Your task to perform on an android device: toggle location history Image 0: 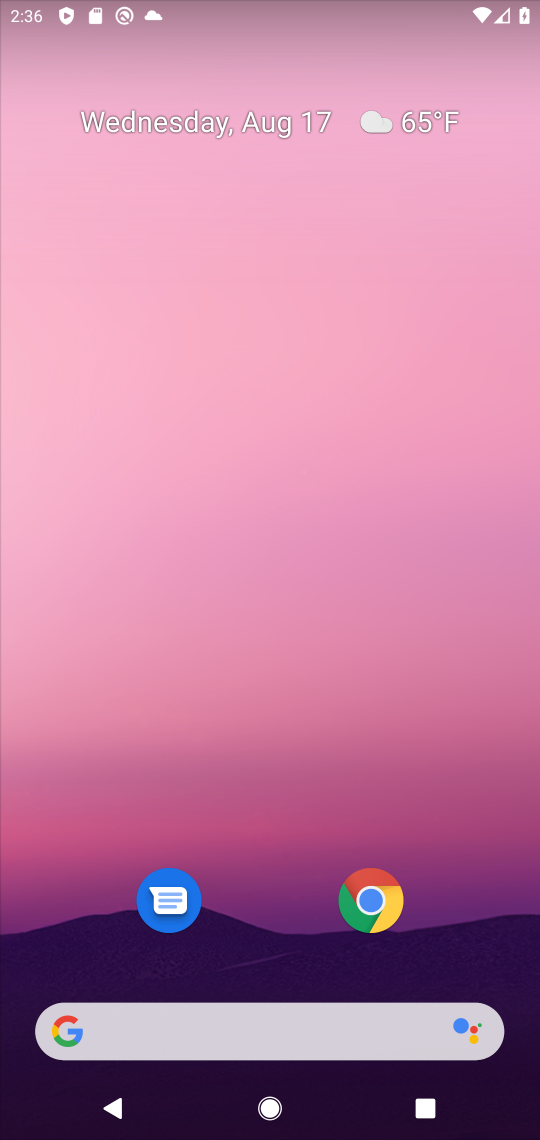
Step 0: drag from (261, 1034) to (348, 124)
Your task to perform on an android device: toggle location history Image 1: 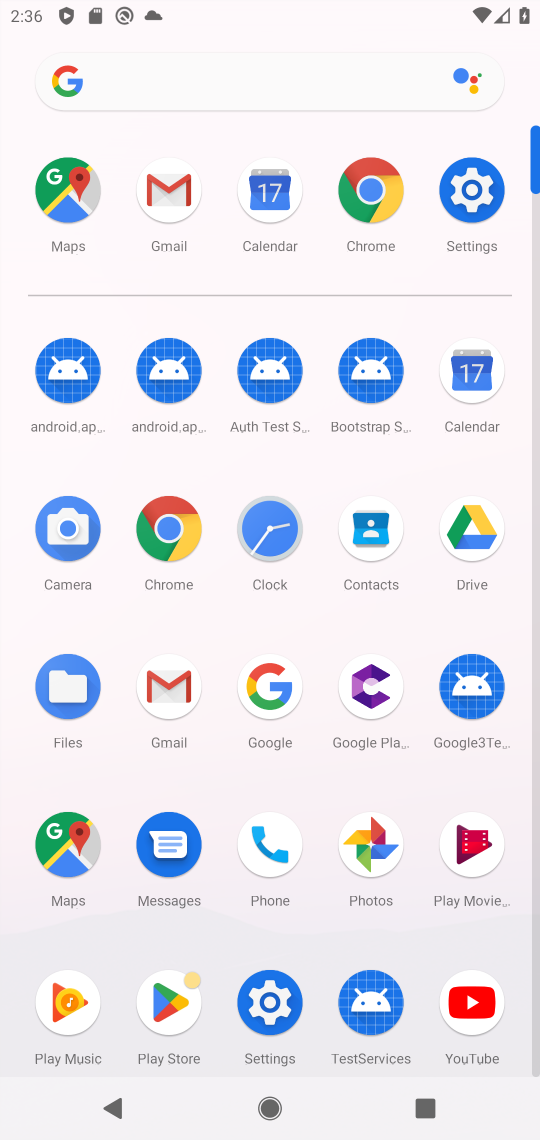
Step 1: click (49, 195)
Your task to perform on an android device: toggle location history Image 2: 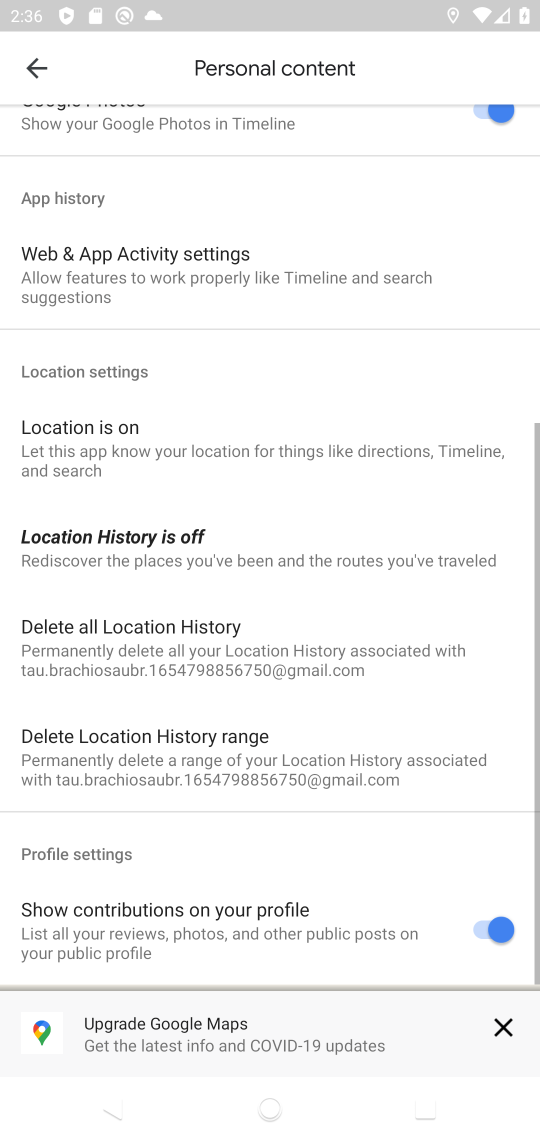
Step 2: click (177, 559)
Your task to perform on an android device: toggle location history Image 3: 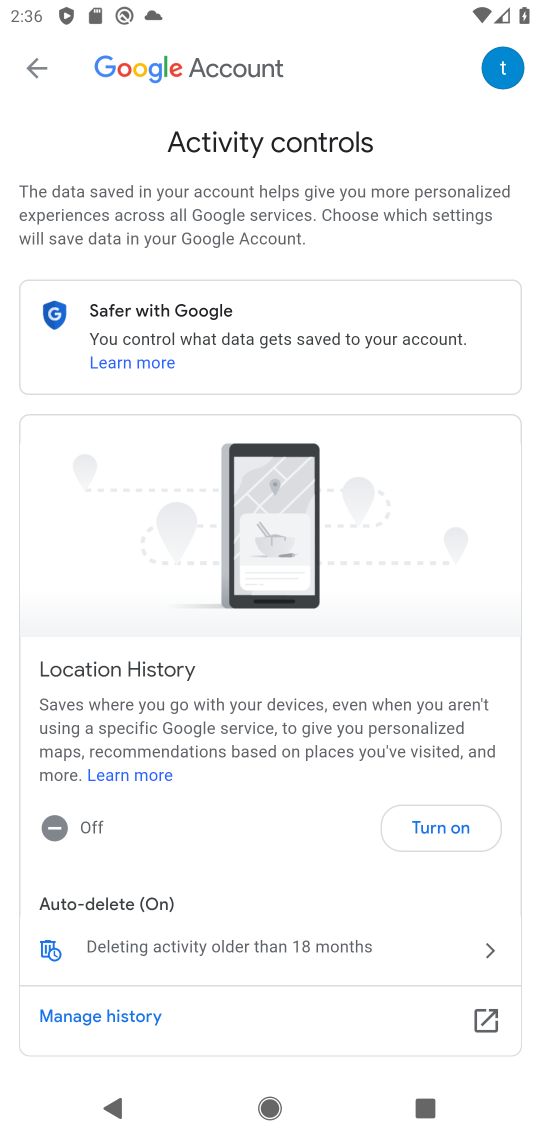
Step 3: click (440, 827)
Your task to perform on an android device: toggle location history Image 4: 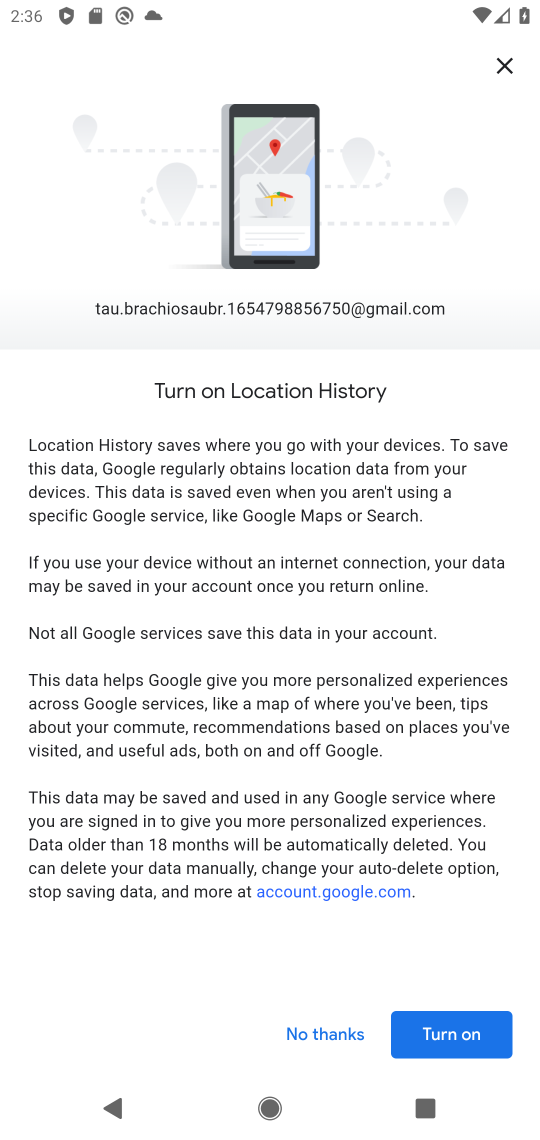
Step 4: drag from (411, 956) to (471, 124)
Your task to perform on an android device: toggle location history Image 5: 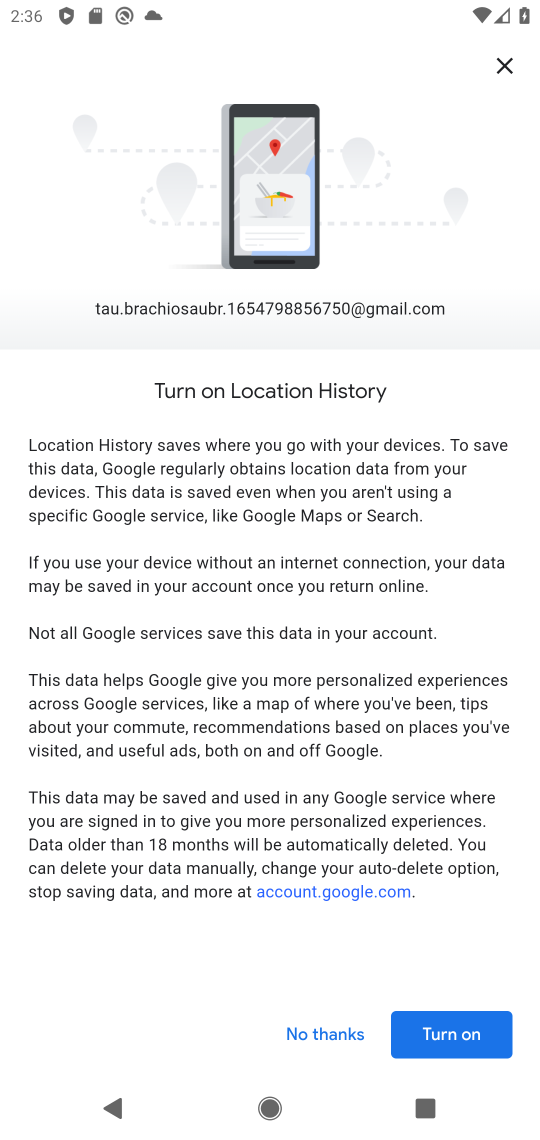
Step 5: click (446, 1043)
Your task to perform on an android device: toggle location history Image 6: 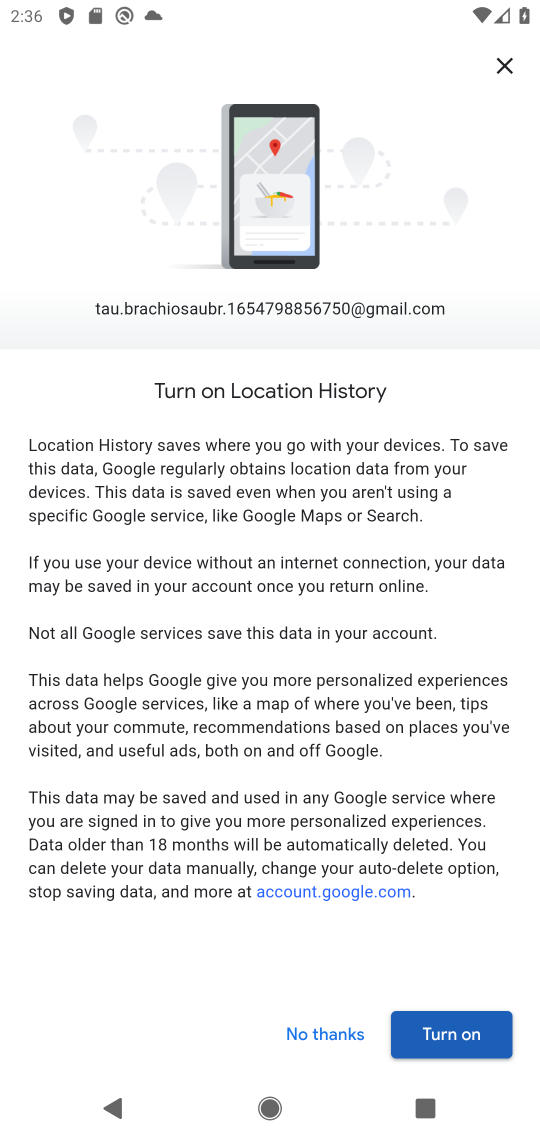
Step 6: click (443, 1034)
Your task to perform on an android device: toggle location history Image 7: 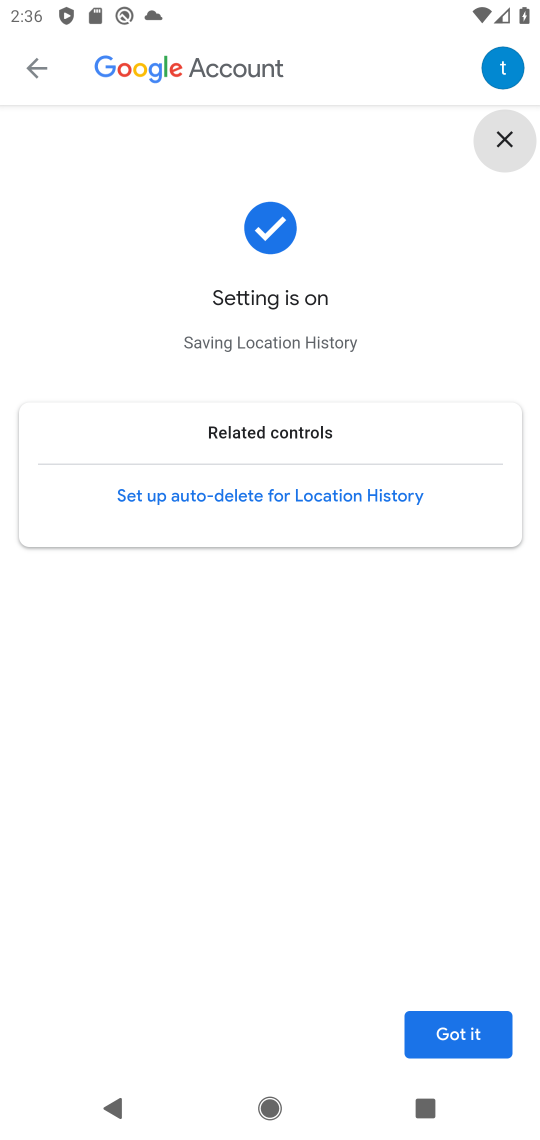
Step 7: click (455, 1034)
Your task to perform on an android device: toggle location history Image 8: 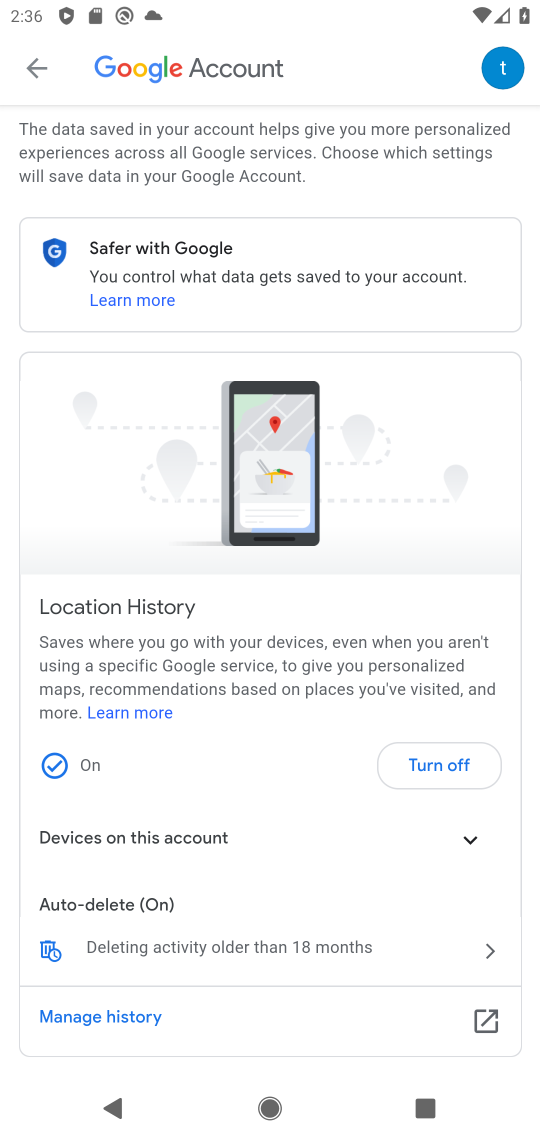
Step 8: task complete